Your task to perform on an android device: open chrome privacy settings Image 0: 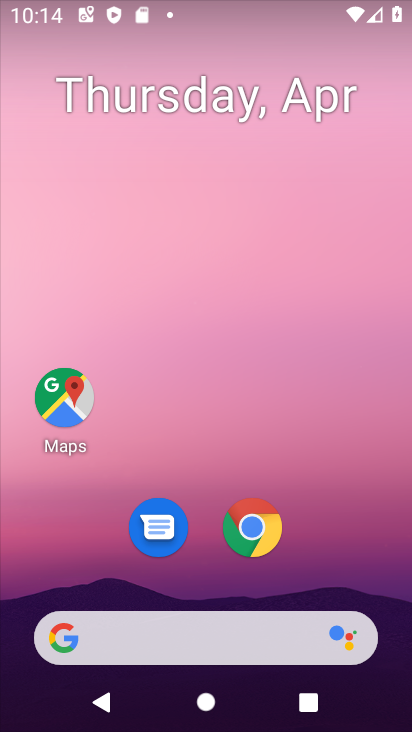
Step 0: drag from (343, 502) to (364, 43)
Your task to perform on an android device: open chrome privacy settings Image 1: 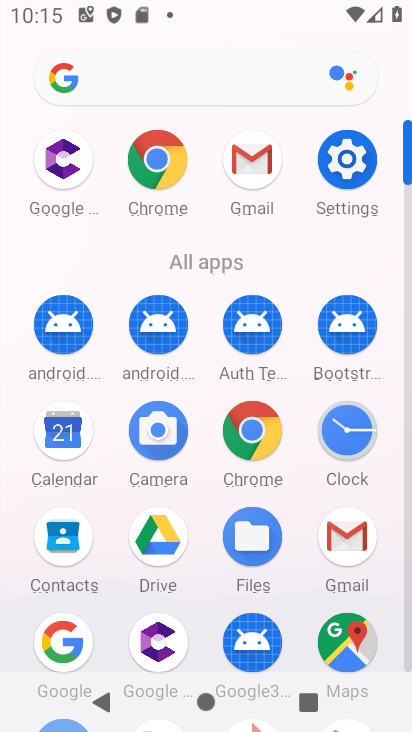
Step 1: click (346, 155)
Your task to perform on an android device: open chrome privacy settings Image 2: 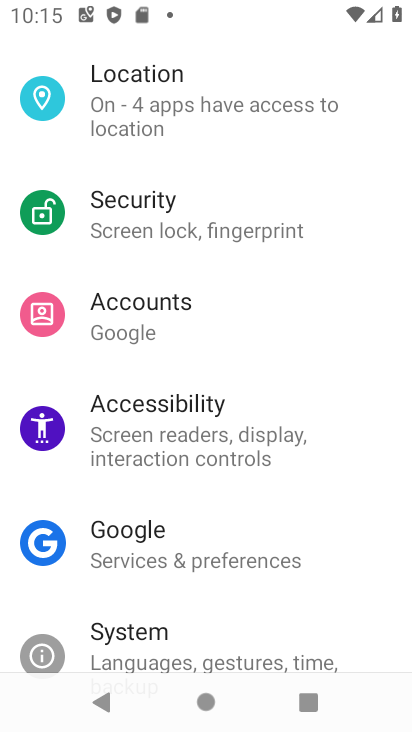
Step 2: drag from (166, 566) to (201, 186)
Your task to perform on an android device: open chrome privacy settings Image 3: 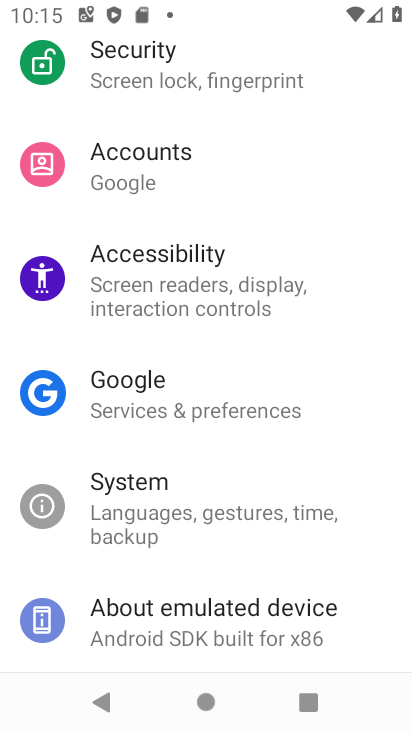
Step 3: drag from (166, 582) to (217, 223)
Your task to perform on an android device: open chrome privacy settings Image 4: 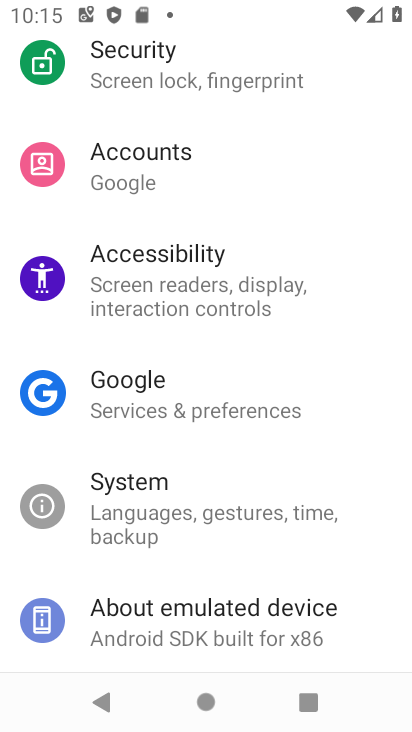
Step 4: drag from (217, 223) to (176, 540)
Your task to perform on an android device: open chrome privacy settings Image 5: 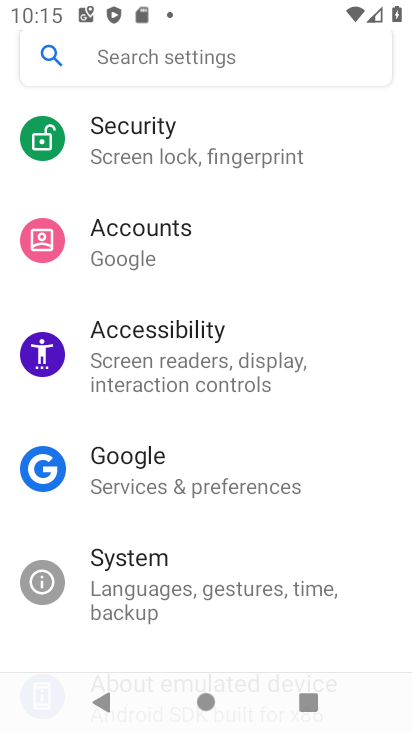
Step 5: drag from (206, 296) to (198, 576)
Your task to perform on an android device: open chrome privacy settings Image 6: 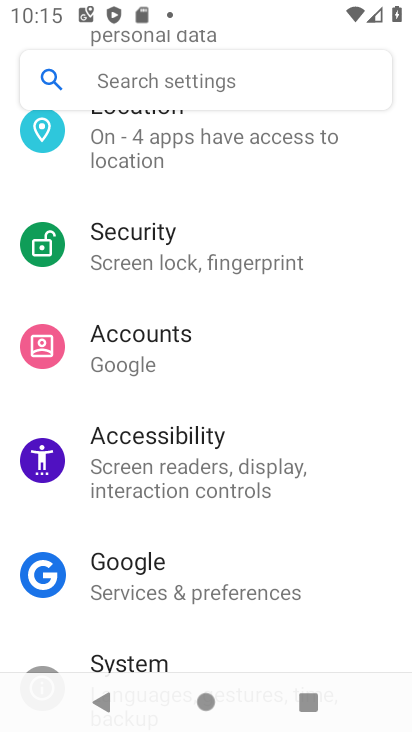
Step 6: drag from (245, 291) to (222, 701)
Your task to perform on an android device: open chrome privacy settings Image 7: 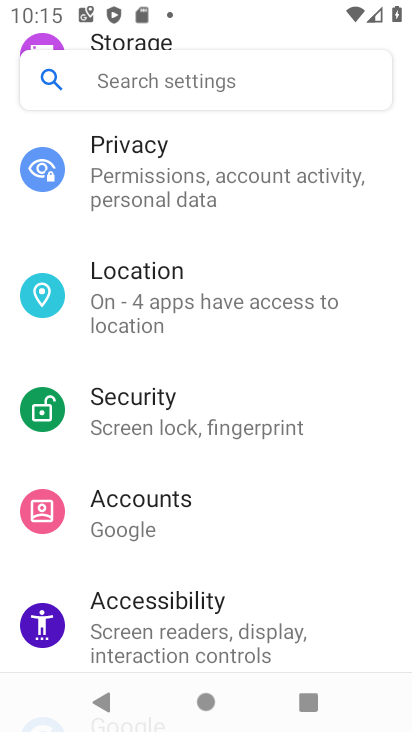
Step 7: click (144, 155)
Your task to perform on an android device: open chrome privacy settings Image 8: 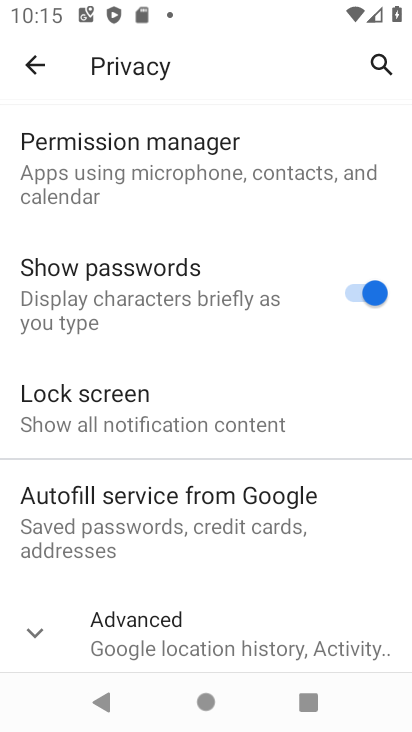
Step 8: task complete